Your task to perform on an android device: turn off notifications settings in the gmail app Image 0: 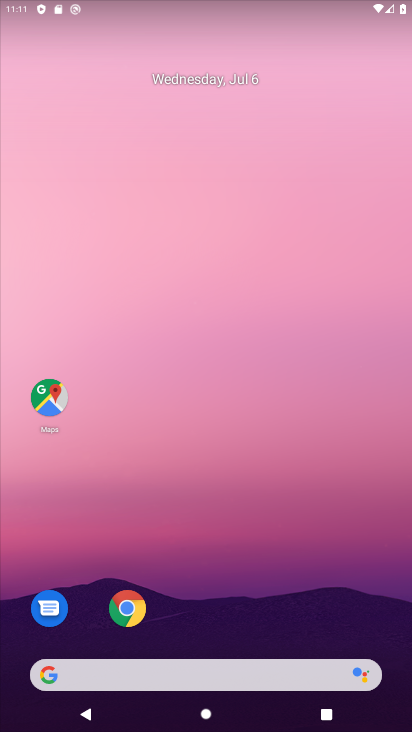
Step 0: drag from (299, 634) to (274, 230)
Your task to perform on an android device: turn off notifications settings in the gmail app Image 1: 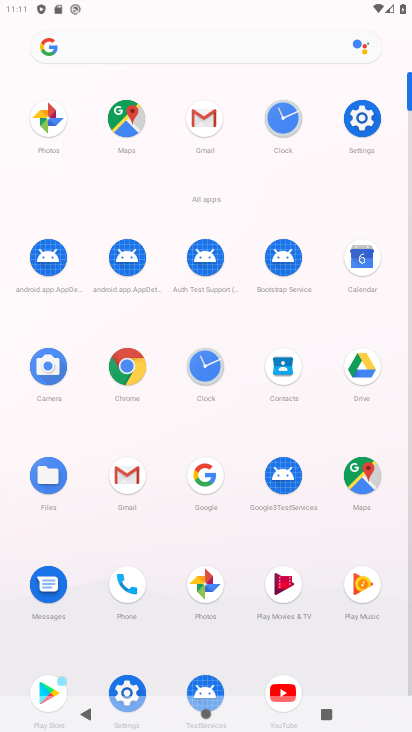
Step 1: click (116, 473)
Your task to perform on an android device: turn off notifications settings in the gmail app Image 2: 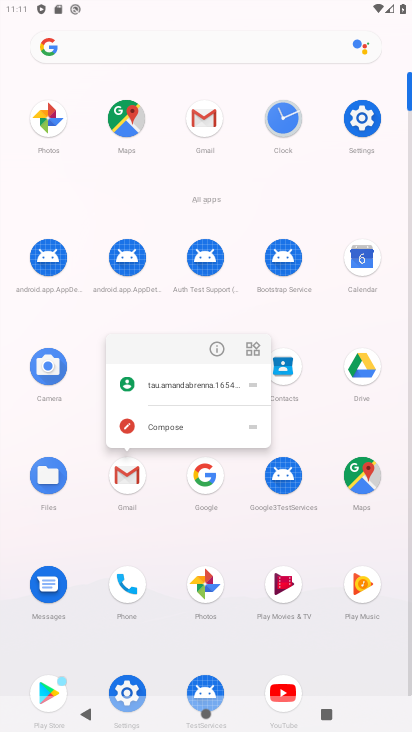
Step 2: click (217, 348)
Your task to perform on an android device: turn off notifications settings in the gmail app Image 3: 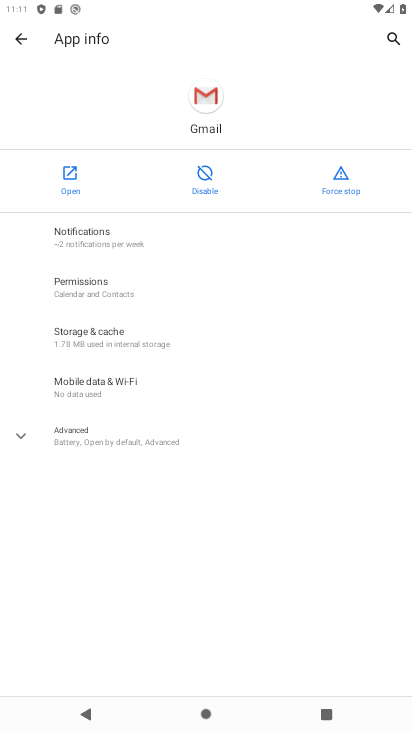
Step 3: click (97, 230)
Your task to perform on an android device: turn off notifications settings in the gmail app Image 4: 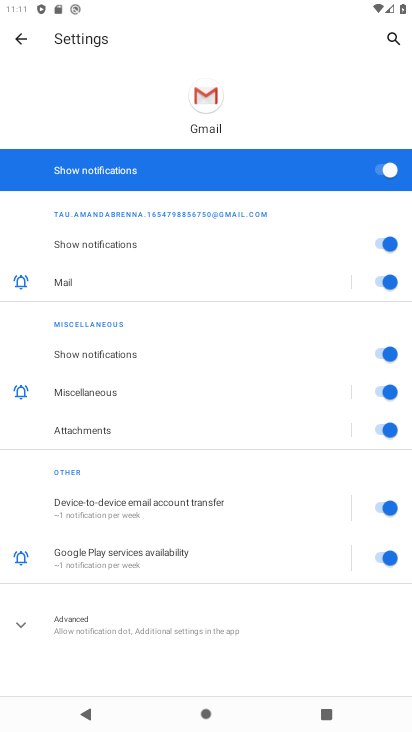
Step 4: click (379, 166)
Your task to perform on an android device: turn off notifications settings in the gmail app Image 5: 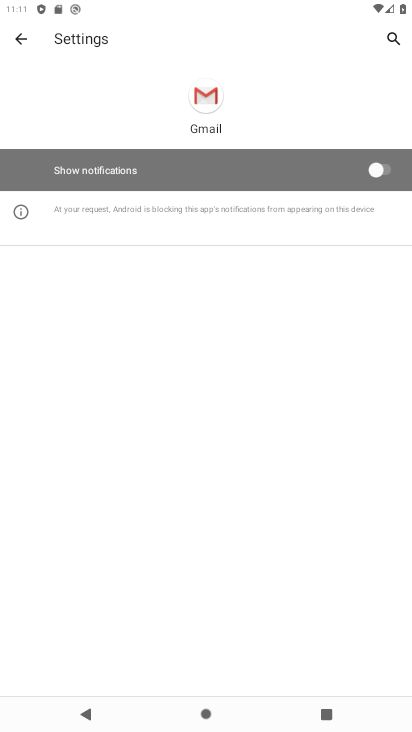
Step 5: task complete